Your task to perform on an android device: Turn on the flashlight Image 0: 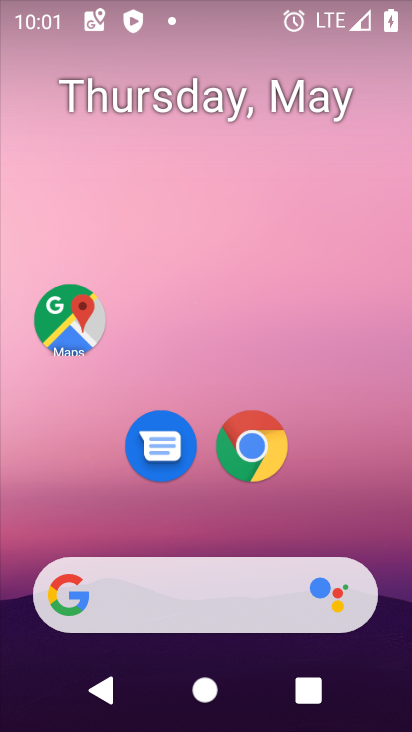
Step 0: drag from (225, 10) to (254, 493)
Your task to perform on an android device: Turn on the flashlight Image 1: 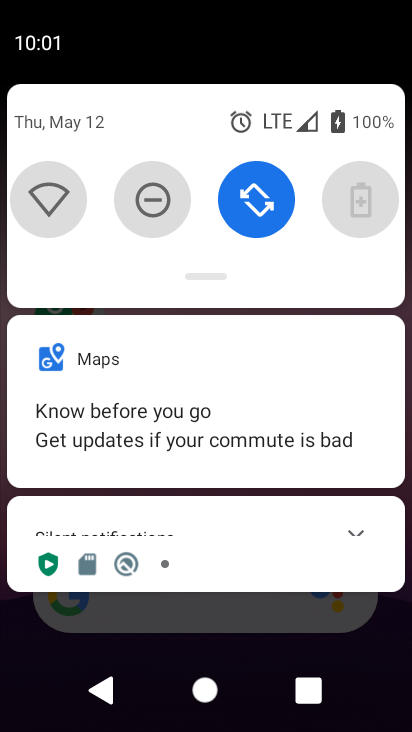
Step 1: drag from (198, 275) to (175, 553)
Your task to perform on an android device: Turn on the flashlight Image 2: 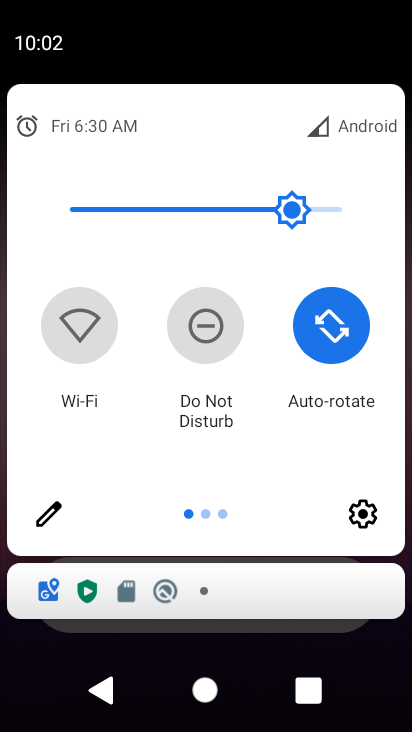
Step 2: click (46, 508)
Your task to perform on an android device: Turn on the flashlight Image 3: 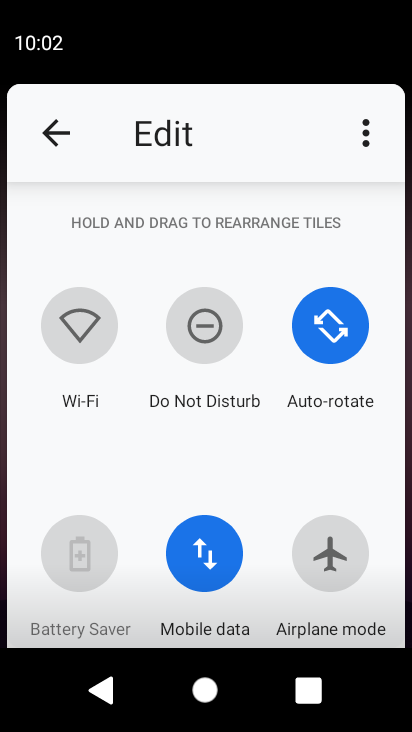
Step 3: task complete